Your task to perform on an android device: delete a single message in the gmail app Image 0: 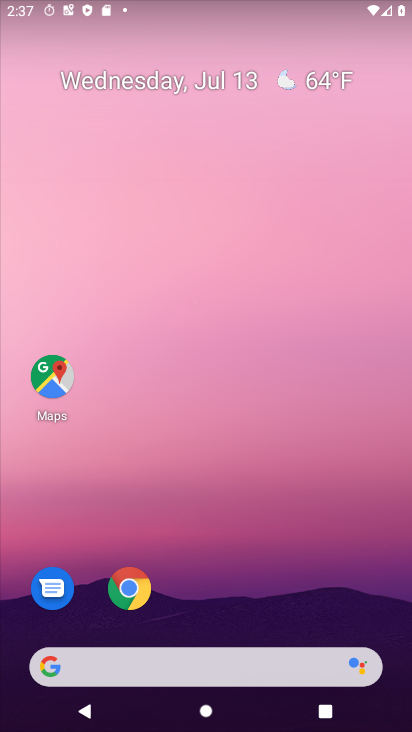
Step 0: drag from (190, 639) to (248, 242)
Your task to perform on an android device: delete a single message in the gmail app Image 1: 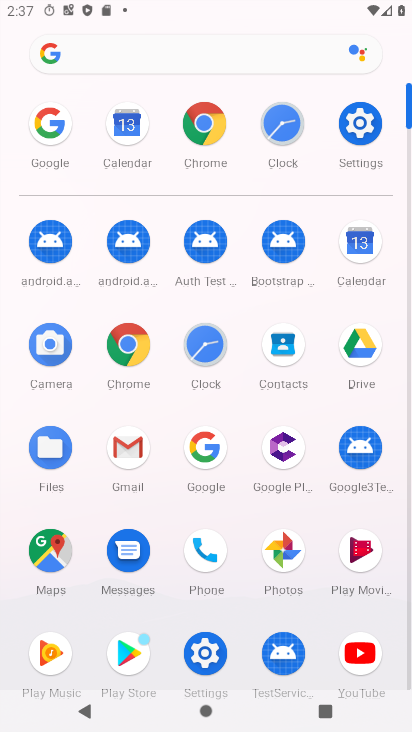
Step 1: click (126, 451)
Your task to perform on an android device: delete a single message in the gmail app Image 2: 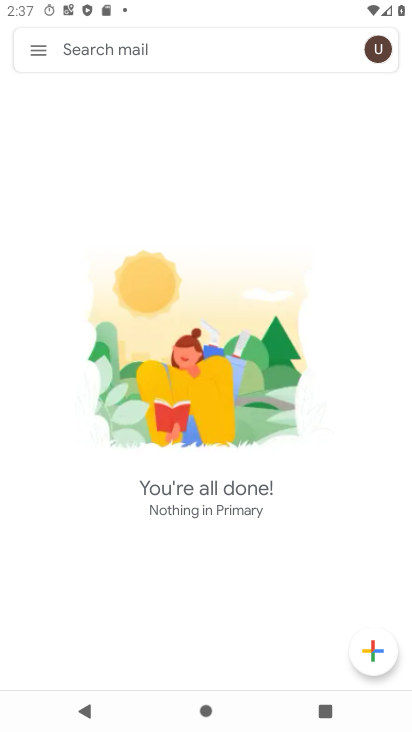
Step 2: task complete